Your task to perform on an android device: Open Google Chrome and click the shortcut for Amazon.com Image 0: 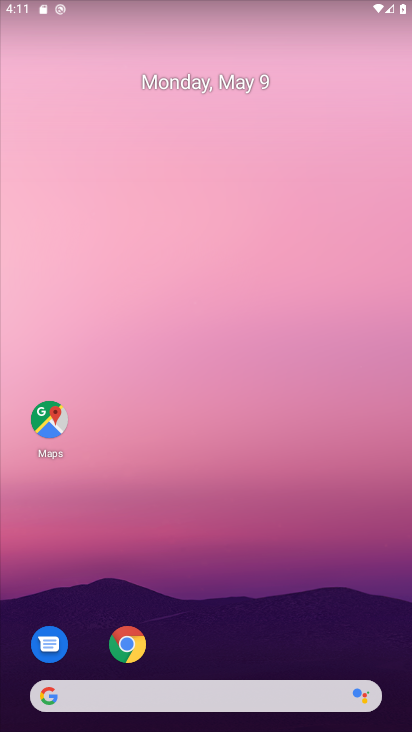
Step 0: click (125, 644)
Your task to perform on an android device: Open Google Chrome and click the shortcut for Amazon.com Image 1: 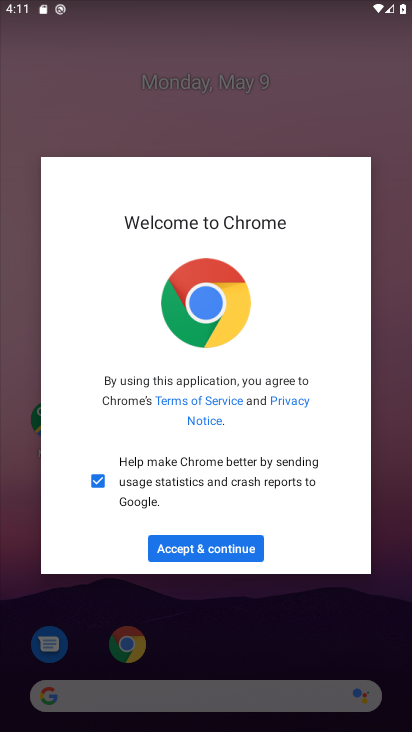
Step 1: click (207, 550)
Your task to perform on an android device: Open Google Chrome and click the shortcut for Amazon.com Image 2: 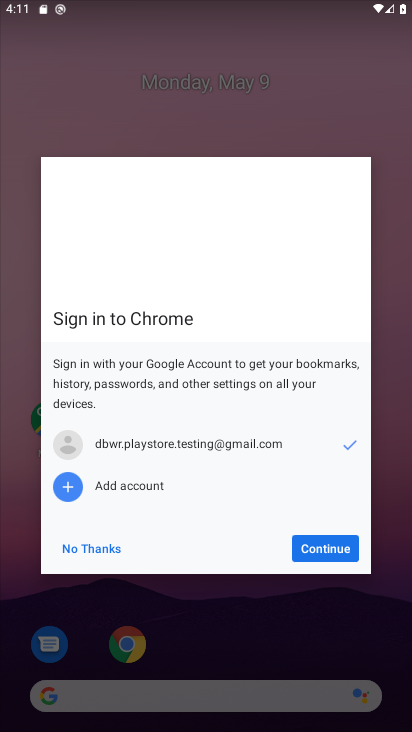
Step 2: click (314, 550)
Your task to perform on an android device: Open Google Chrome and click the shortcut for Amazon.com Image 3: 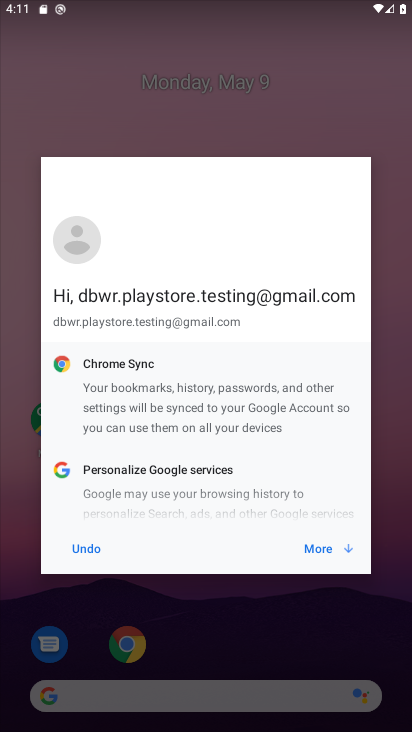
Step 3: click (314, 550)
Your task to perform on an android device: Open Google Chrome and click the shortcut for Amazon.com Image 4: 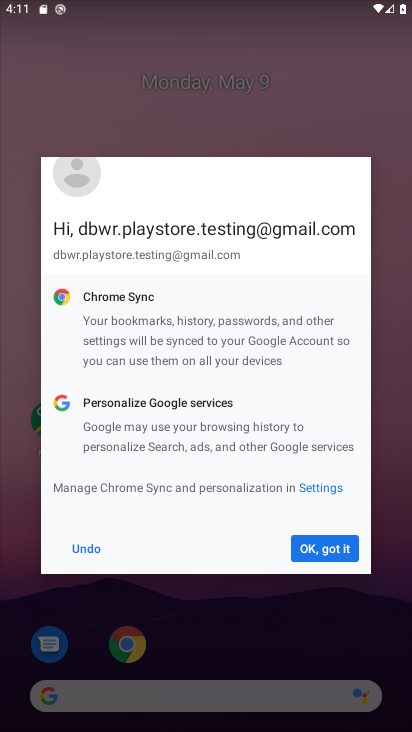
Step 4: click (314, 550)
Your task to perform on an android device: Open Google Chrome and click the shortcut for Amazon.com Image 5: 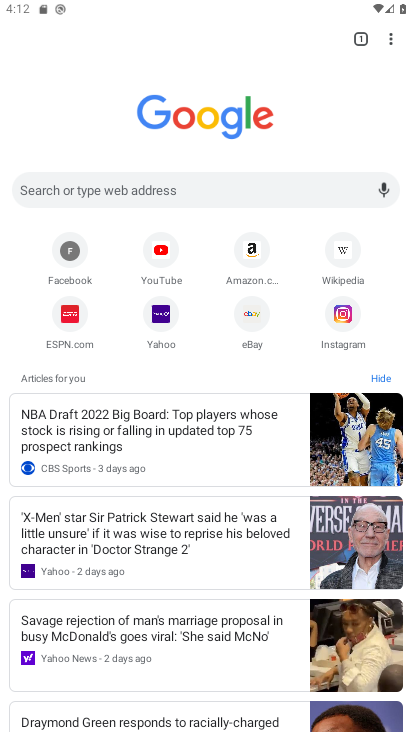
Step 5: click (254, 255)
Your task to perform on an android device: Open Google Chrome and click the shortcut for Amazon.com Image 6: 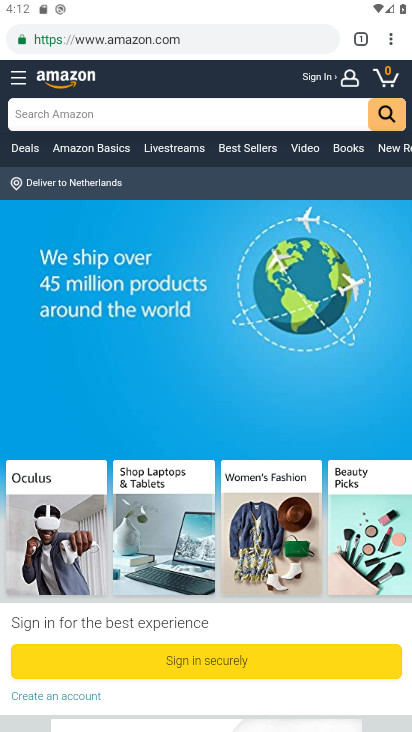
Step 6: click (390, 40)
Your task to perform on an android device: Open Google Chrome and click the shortcut for Amazon.com Image 7: 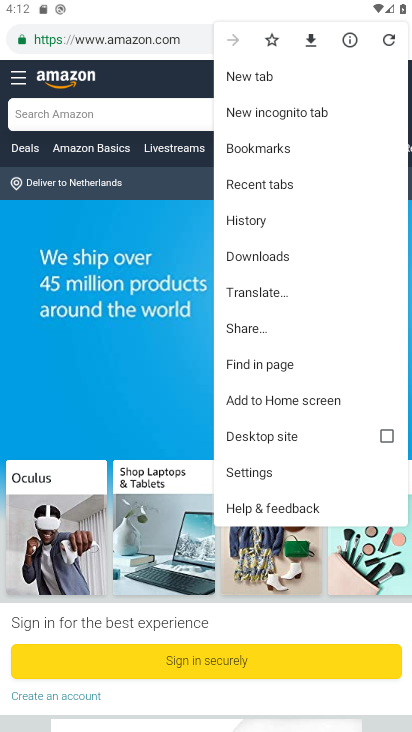
Step 7: click (284, 404)
Your task to perform on an android device: Open Google Chrome and click the shortcut for Amazon.com Image 8: 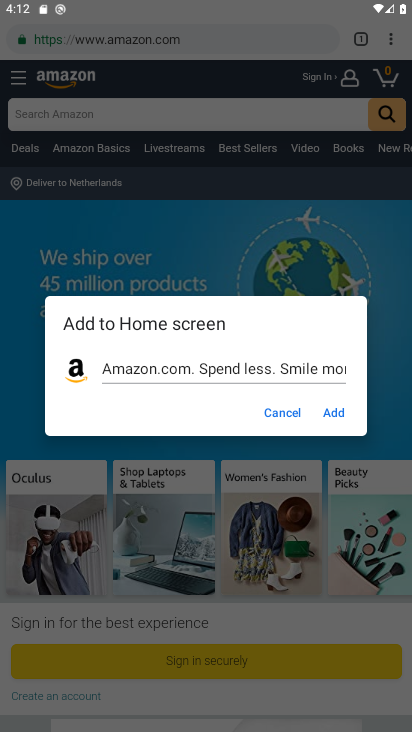
Step 8: click (338, 410)
Your task to perform on an android device: Open Google Chrome and click the shortcut for Amazon.com Image 9: 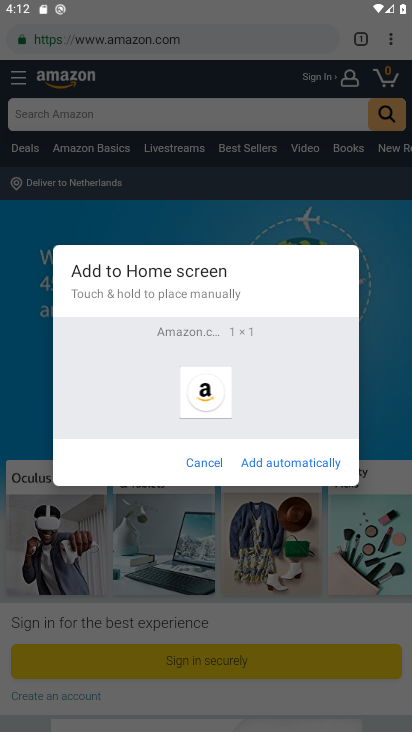
Step 9: click (322, 455)
Your task to perform on an android device: Open Google Chrome and click the shortcut for Amazon.com Image 10: 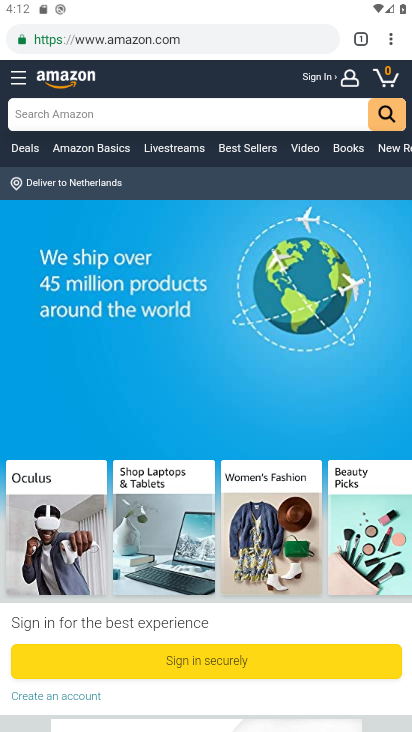
Step 10: task complete